Your task to perform on an android device: Show me popular videos on Youtube Image 0: 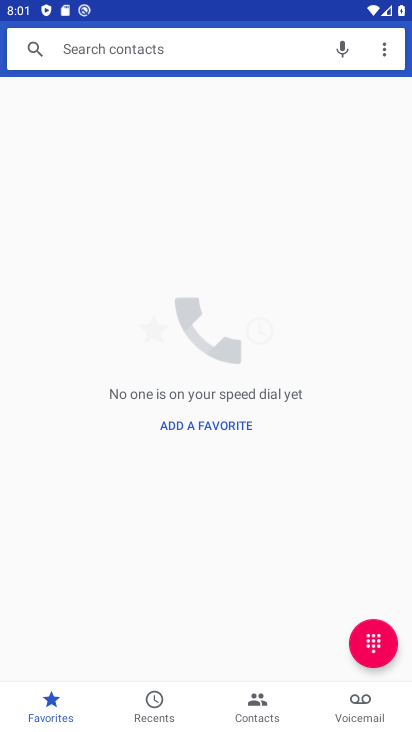
Step 0: press home button
Your task to perform on an android device: Show me popular videos on Youtube Image 1: 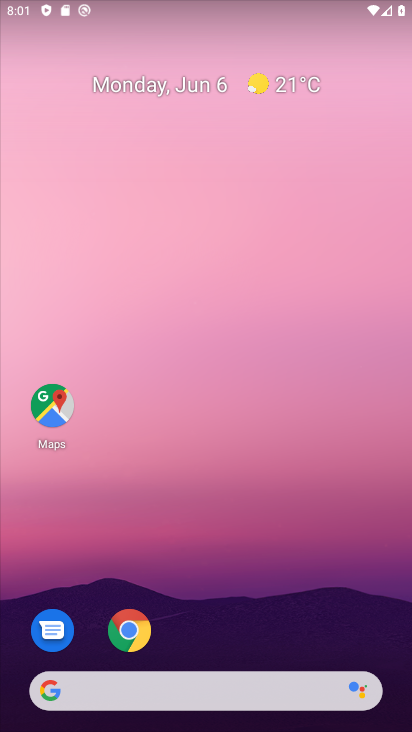
Step 1: drag from (172, 674) to (294, 137)
Your task to perform on an android device: Show me popular videos on Youtube Image 2: 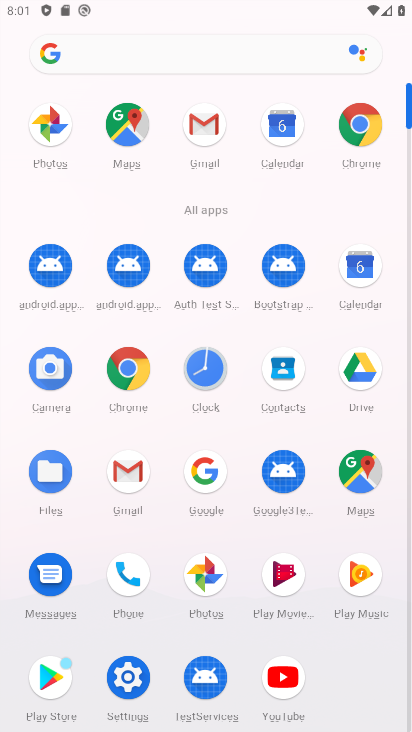
Step 2: click (279, 693)
Your task to perform on an android device: Show me popular videos on Youtube Image 3: 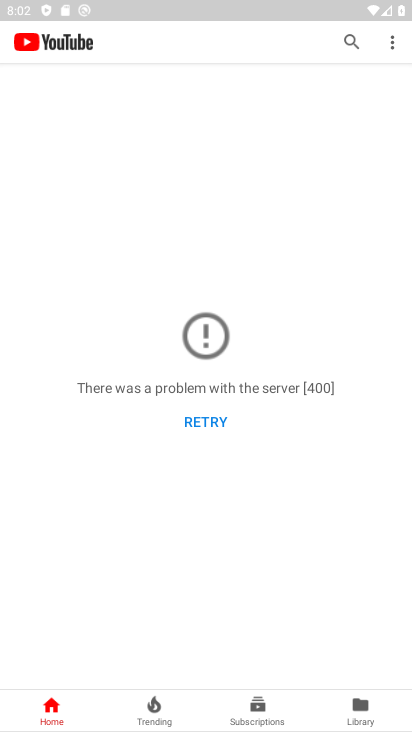
Step 3: click (360, 712)
Your task to perform on an android device: Show me popular videos on Youtube Image 4: 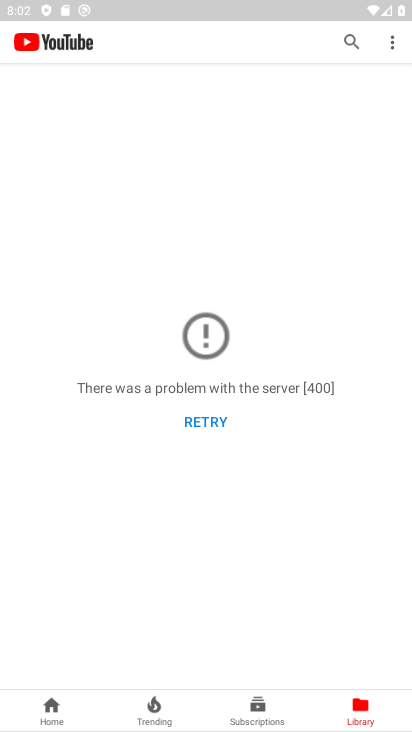
Step 4: task complete